Your task to perform on an android device: turn notification dots off Image 0: 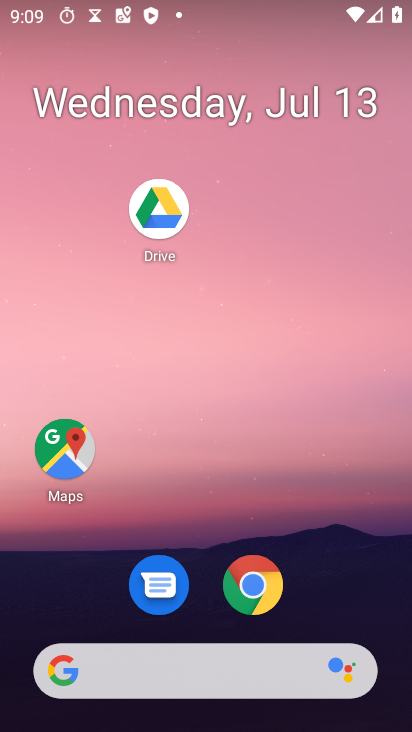
Step 0: drag from (240, 677) to (368, 7)
Your task to perform on an android device: turn notification dots off Image 1: 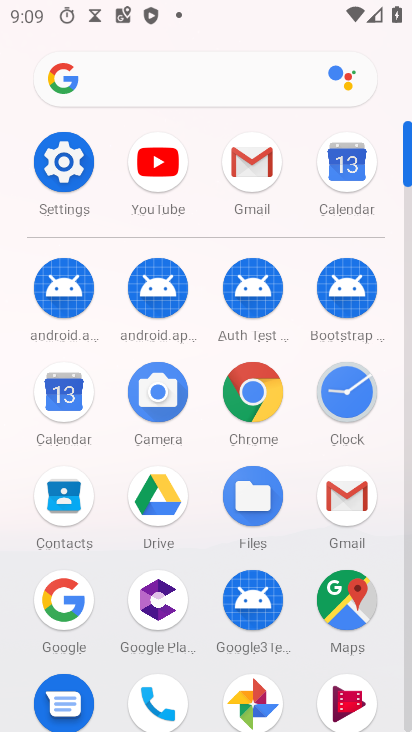
Step 1: click (71, 170)
Your task to perform on an android device: turn notification dots off Image 2: 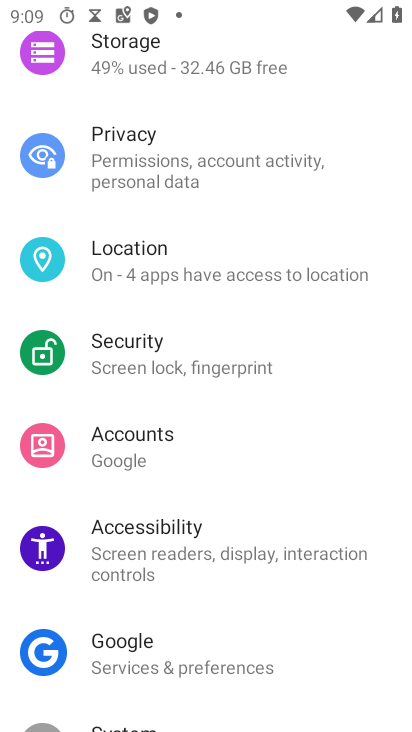
Step 2: drag from (245, 114) to (261, 570)
Your task to perform on an android device: turn notification dots off Image 3: 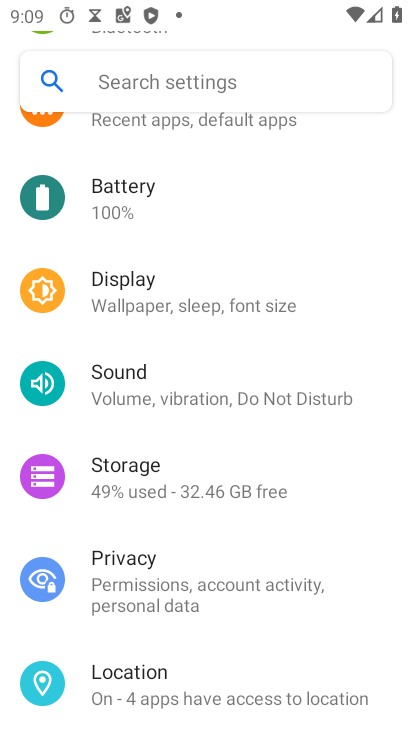
Step 3: drag from (332, 185) to (294, 538)
Your task to perform on an android device: turn notification dots off Image 4: 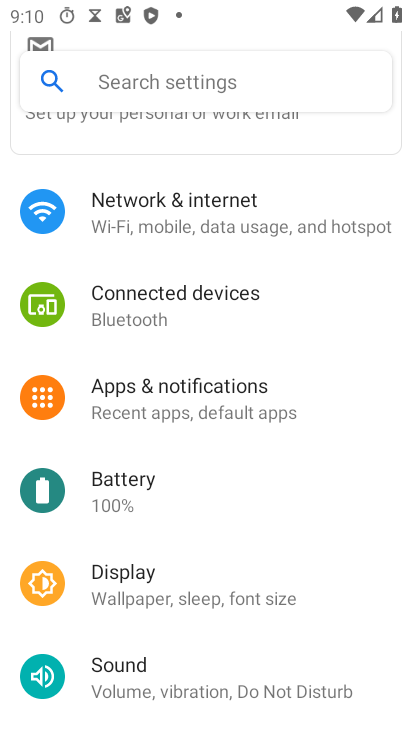
Step 4: click (213, 393)
Your task to perform on an android device: turn notification dots off Image 5: 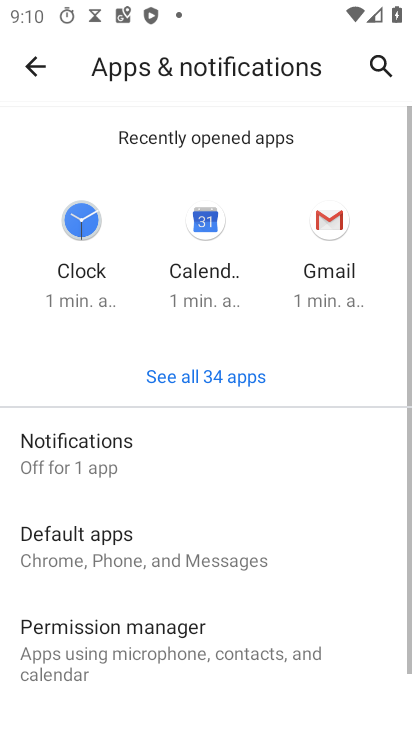
Step 5: drag from (254, 616) to (315, 145)
Your task to perform on an android device: turn notification dots off Image 6: 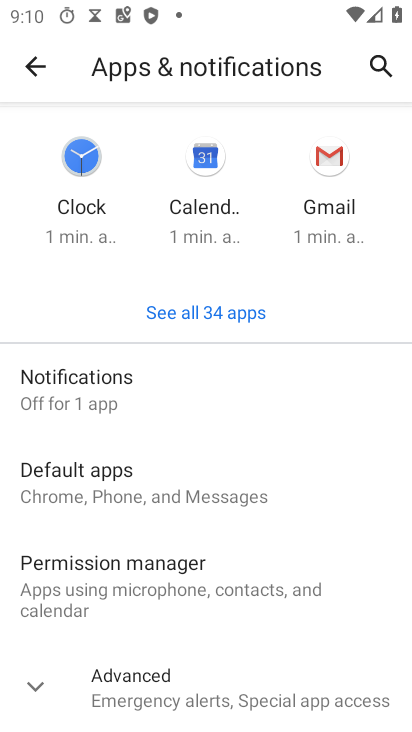
Step 6: click (167, 682)
Your task to perform on an android device: turn notification dots off Image 7: 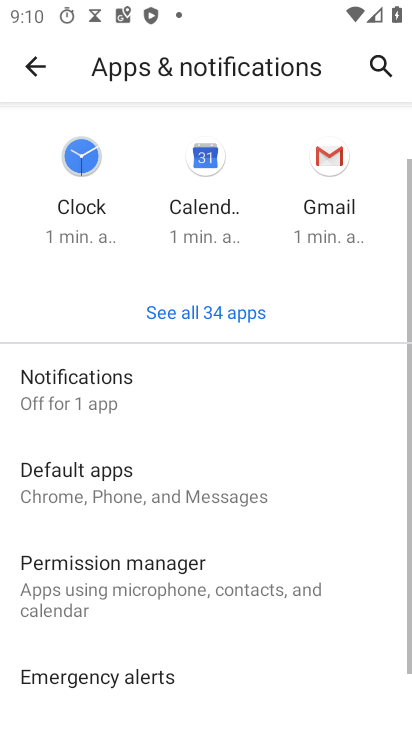
Step 7: drag from (267, 635) to (312, 89)
Your task to perform on an android device: turn notification dots off Image 8: 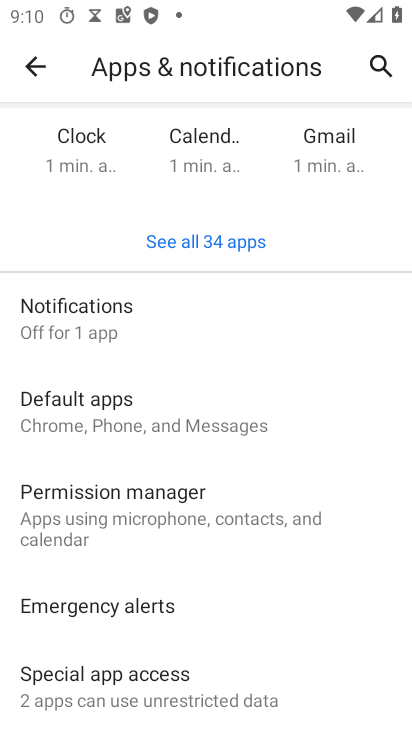
Step 8: click (76, 320)
Your task to perform on an android device: turn notification dots off Image 9: 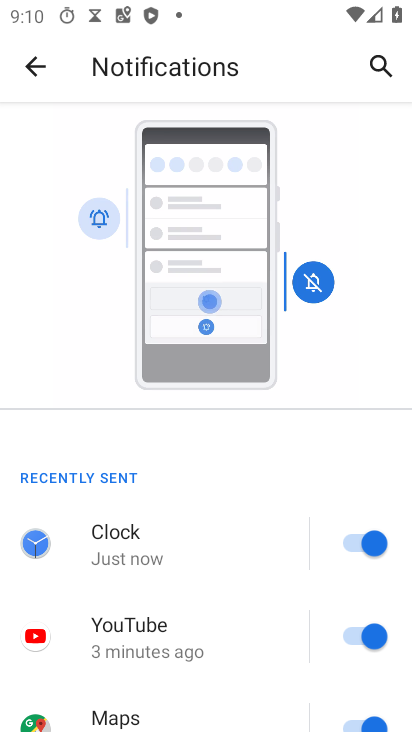
Step 9: drag from (201, 610) to (327, 154)
Your task to perform on an android device: turn notification dots off Image 10: 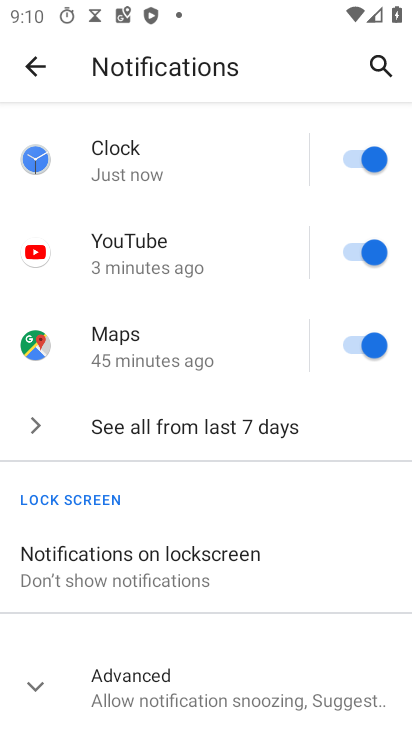
Step 10: click (161, 672)
Your task to perform on an android device: turn notification dots off Image 11: 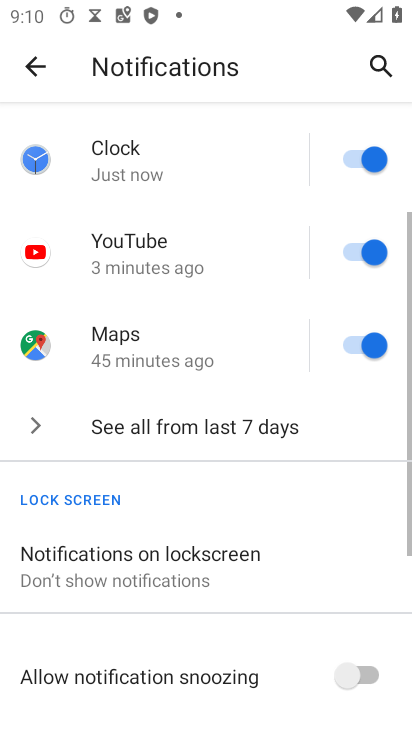
Step 11: task complete